Your task to perform on an android device: check the backup settings in the google photos Image 0: 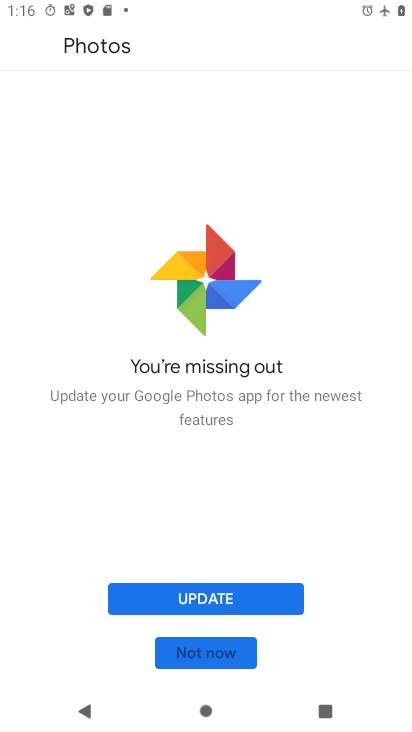
Step 0: press home button
Your task to perform on an android device: check the backup settings in the google photos Image 1: 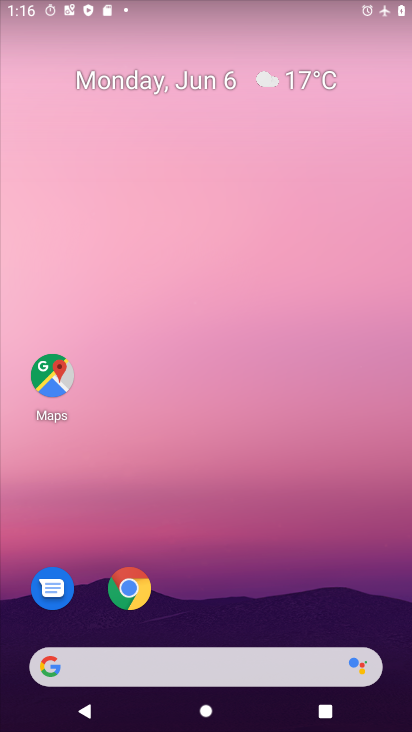
Step 1: drag from (271, 585) to (246, 36)
Your task to perform on an android device: check the backup settings in the google photos Image 2: 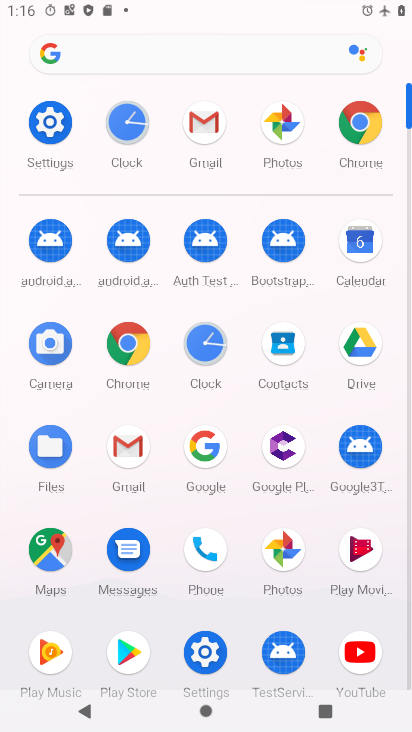
Step 2: click (289, 542)
Your task to perform on an android device: check the backup settings in the google photos Image 3: 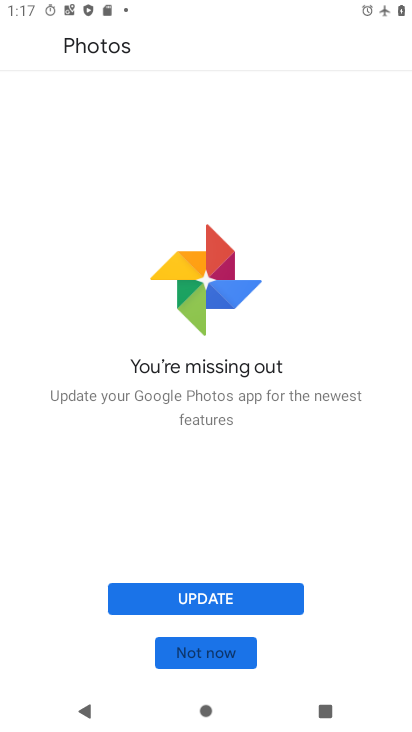
Step 3: click (213, 599)
Your task to perform on an android device: check the backup settings in the google photos Image 4: 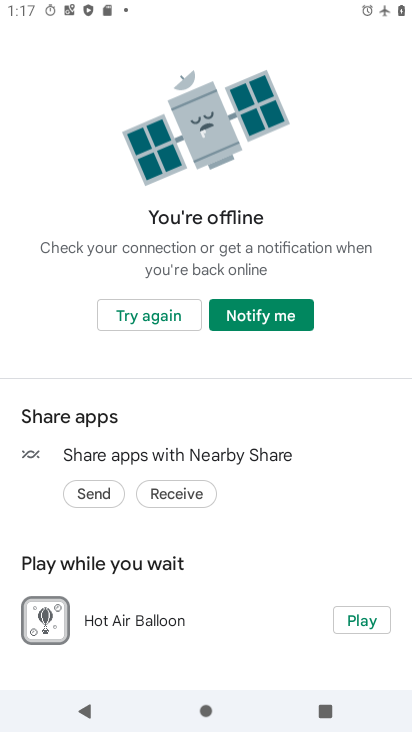
Step 4: task complete